Your task to perform on an android device: Open eBay Image 0: 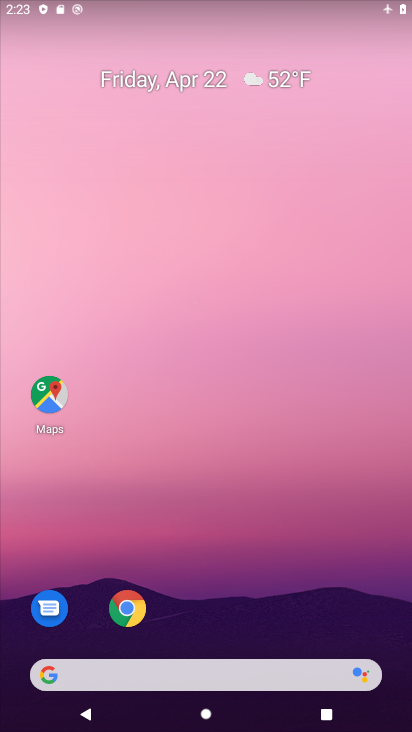
Step 0: click (129, 604)
Your task to perform on an android device: Open eBay Image 1: 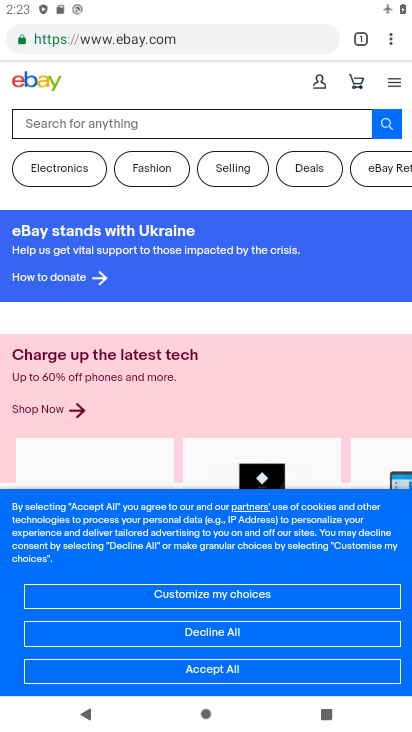
Step 1: task complete